Your task to perform on an android device: Go to privacy settings Image 0: 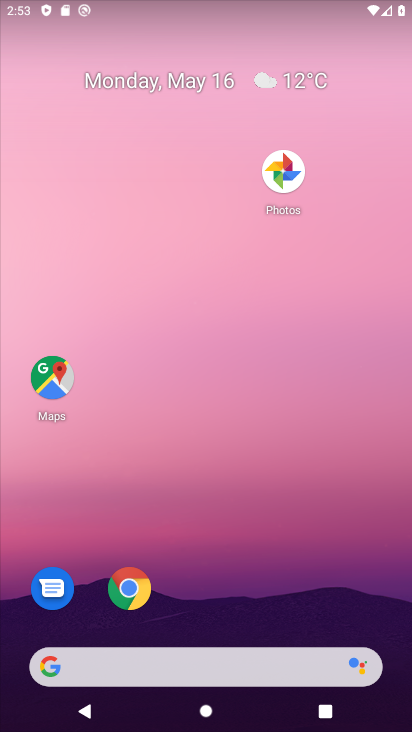
Step 0: drag from (223, 614) to (284, 57)
Your task to perform on an android device: Go to privacy settings Image 1: 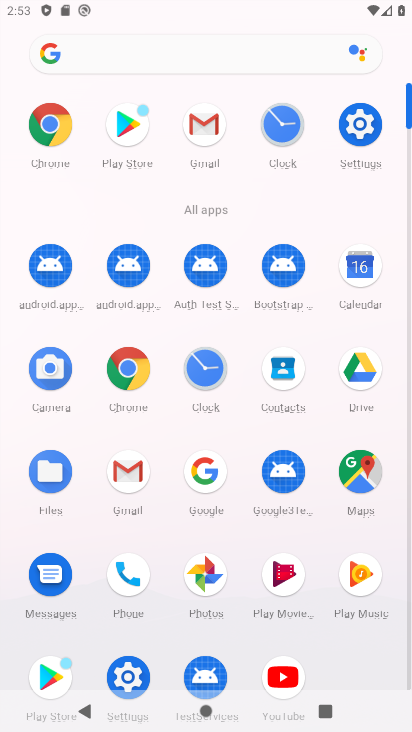
Step 1: click (367, 118)
Your task to perform on an android device: Go to privacy settings Image 2: 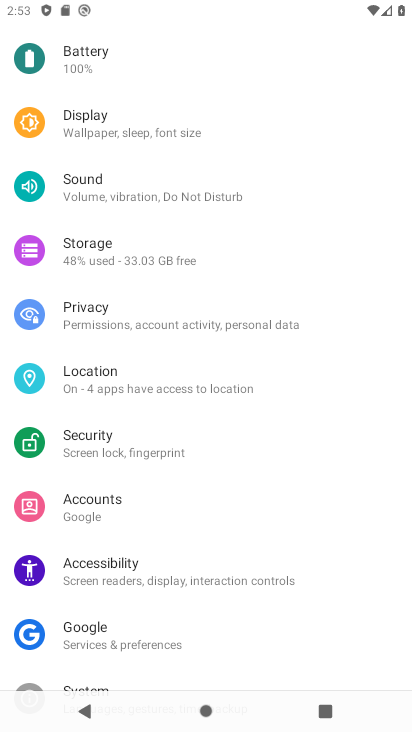
Step 2: click (147, 306)
Your task to perform on an android device: Go to privacy settings Image 3: 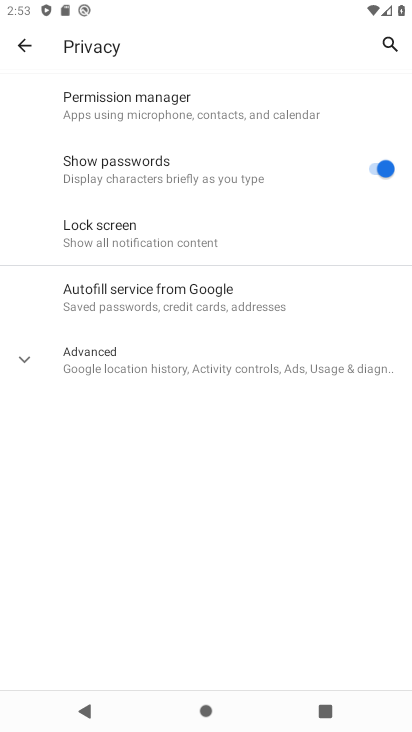
Step 3: task complete